Your task to perform on an android device: move an email to a new category in the gmail app Image 0: 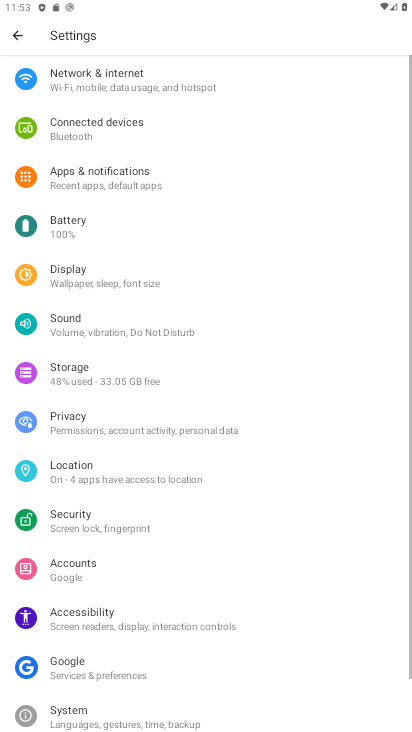
Step 0: click (403, 342)
Your task to perform on an android device: move an email to a new category in the gmail app Image 1: 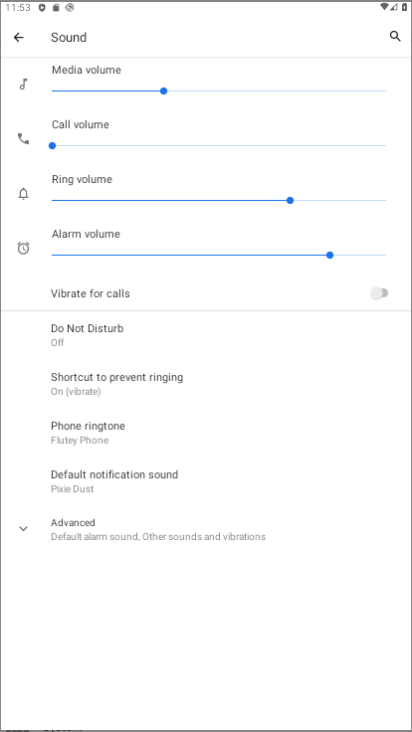
Step 1: click (20, 45)
Your task to perform on an android device: move an email to a new category in the gmail app Image 2: 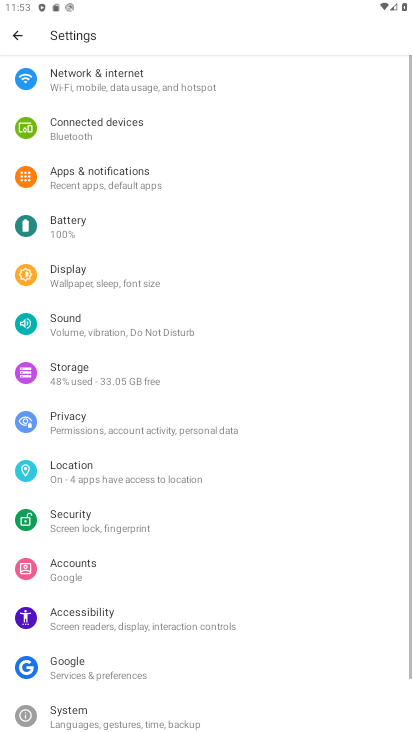
Step 2: click (0, 30)
Your task to perform on an android device: move an email to a new category in the gmail app Image 3: 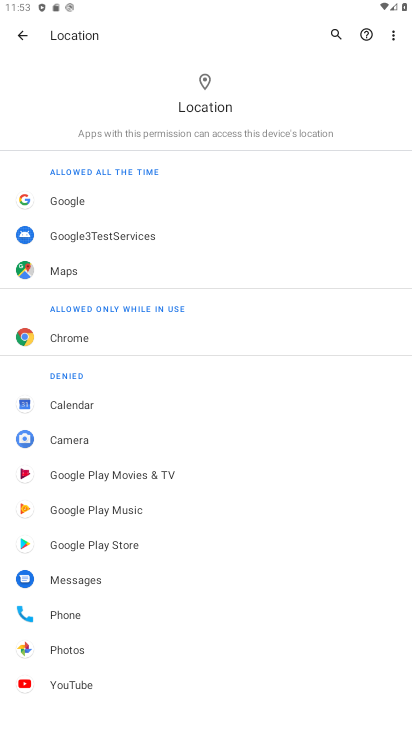
Step 3: press back button
Your task to perform on an android device: move an email to a new category in the gmail app Image 4: 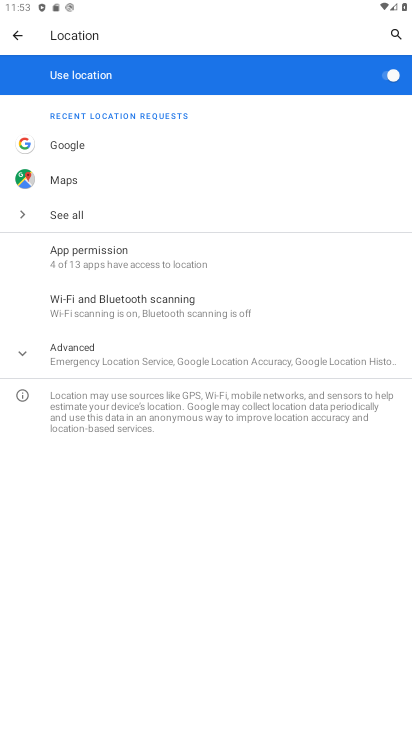
Step 4: press home button
Your task to perform on an android device: move an email to a new category in the gmail app Image 5: 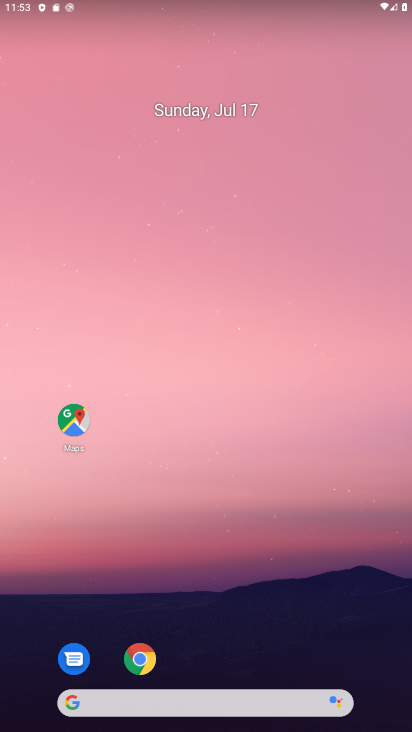
Step 5: drag from (261, 639) to (205, 147)
Your task to perform on an android device: move an email to a new category in the gmail app Image 6: 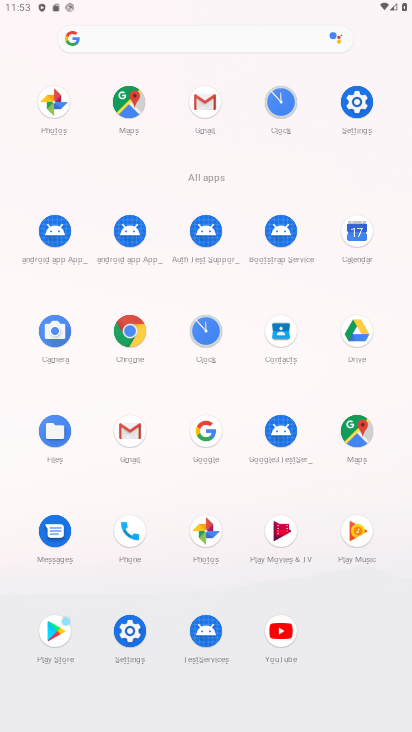
Step 6: click (124, 420)
Your task to perform on an android device: move an email to a new category in the gmail app Image 7: 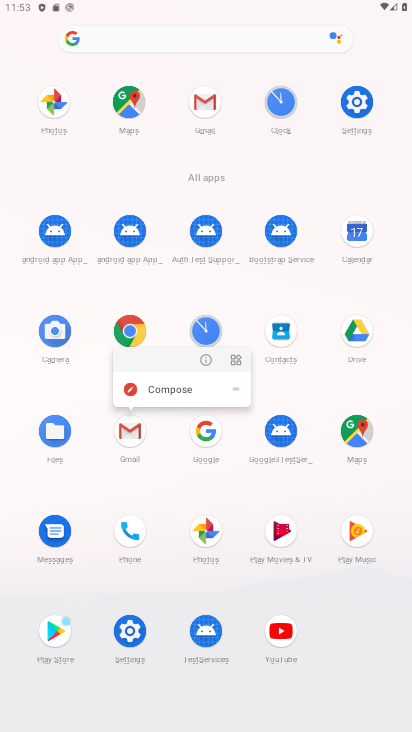
Step 7: click (124, 424)
Your task to perform on an android device: move an email to a new category in the gmail app Image 8: 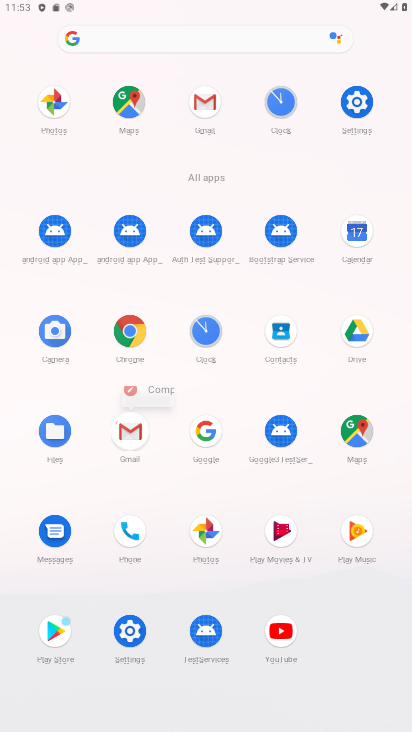
Step 8: click (125, 425)
Your task to perform on an android device: move an email to a new category in the gmail app Image 9: 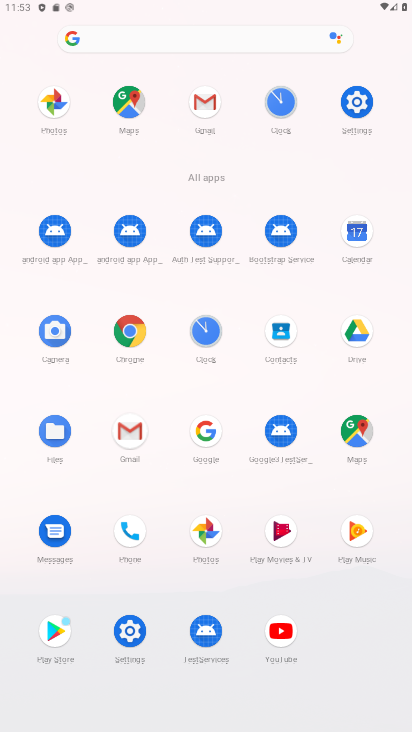
Step 9: click (125, 425)
Your task to perform on an android device: move an email to a new category in the gmail app Image 10: 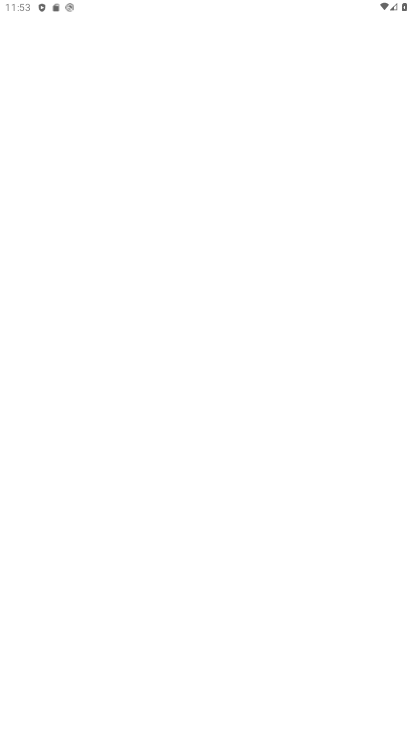
Step 10: click (126, 426)
Your task to perform on an android device: move an email to a new category in the gmail app Image 11: 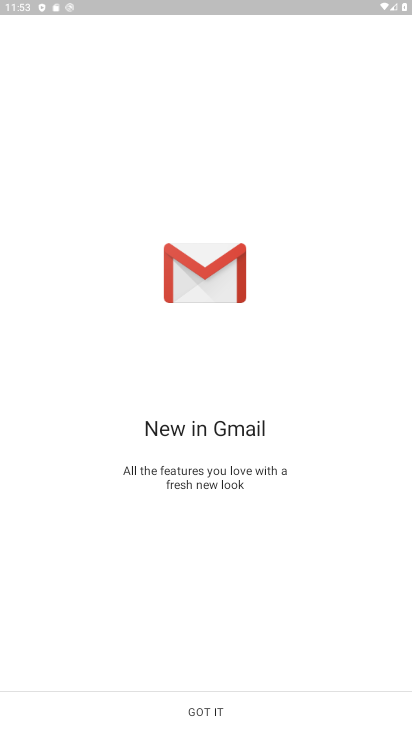
Step 11: click (201, 705)
Your task to perform on an android device: move an email to a new category in the gmail app Image 12: 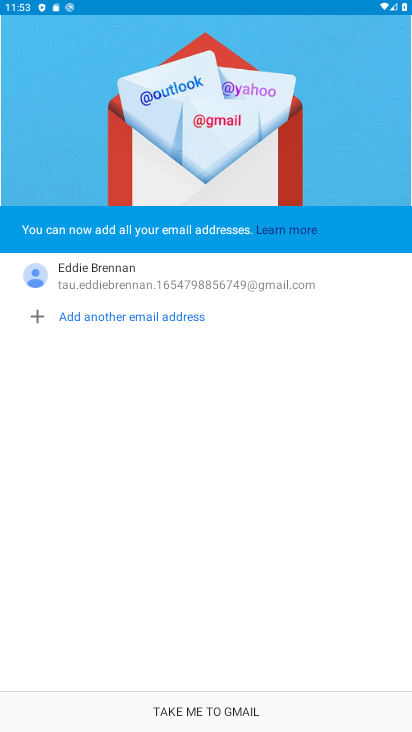
Step 12: drag from (202, 705) to (251, 710)
Your task to perform on an android device: move an email to a new category in the gmail app Image 13: 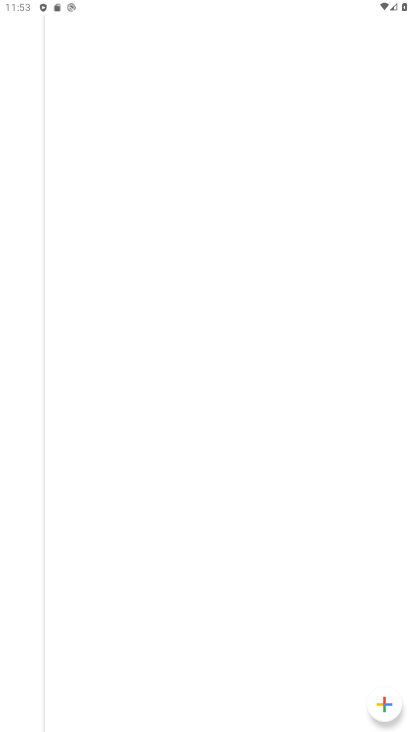
Step 13: click (229, 708)
Your task to perform on an android device: move an email to a new category in the gmail app Image 14: 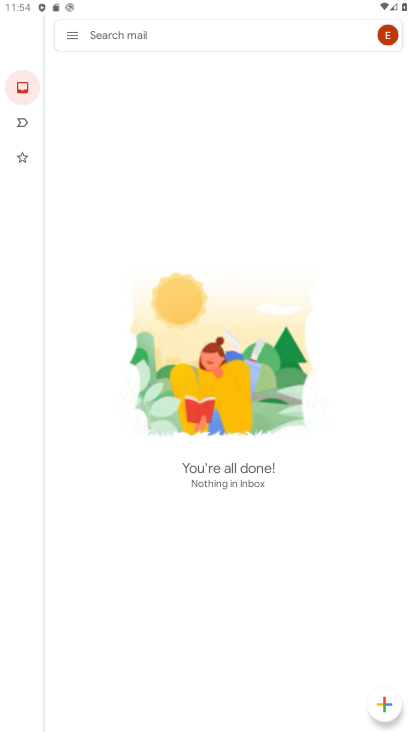
Step 14: click (67, 30)
Your task to perform on an android device: move an email to a new category in the gmail app Image 15: 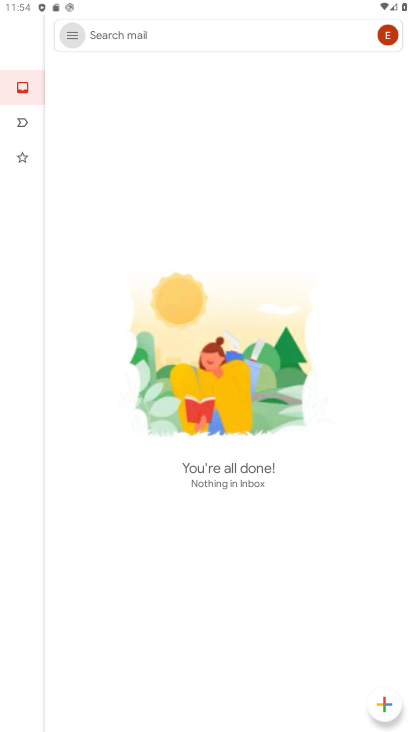
Step 15: click (69, 28)
Your task to perform on an android device: move an email to a new category in the gmail app Image 16: 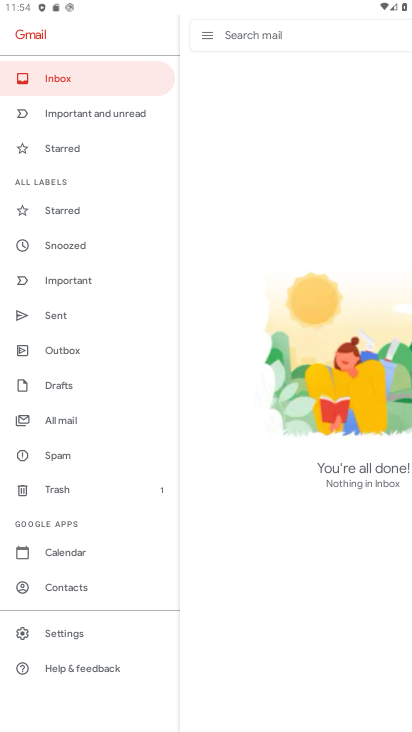
Step 16: click (60, 408)
Your task to perform on an android device: move an email to a new category in the gmail app Image 17: 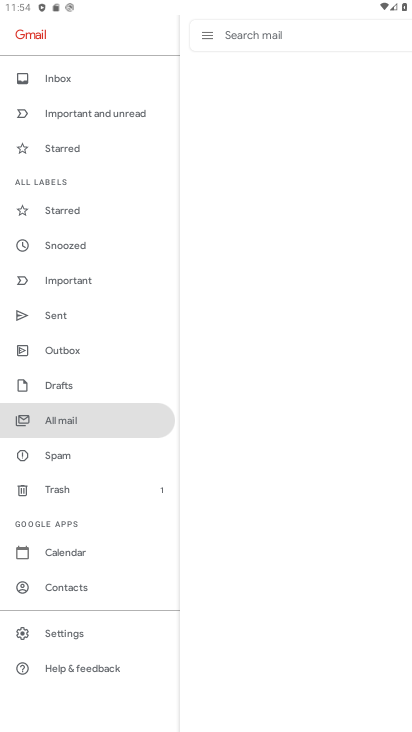
Step 17: click (68, 416)
Your task to perform on an android device: move an email to a new category in the gmail app Image 18: 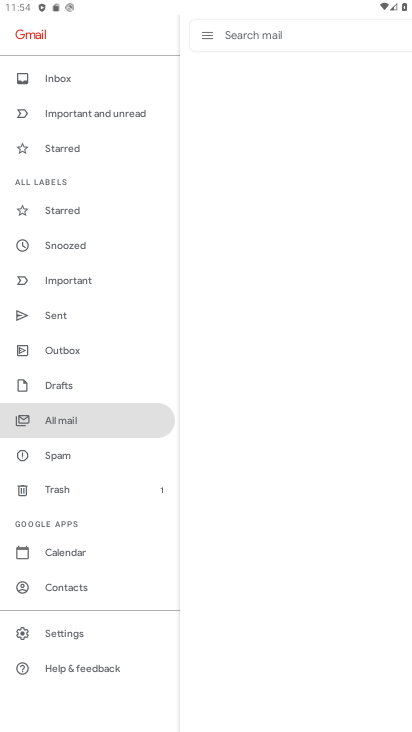
Step 18: click (69, 417)
Your task to perform on an android device: move an email to a new category in the gmail app Image 19: 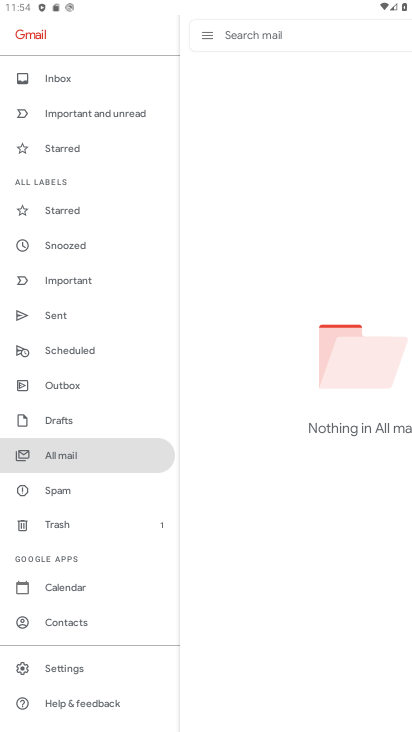
Step 19: click (73, 446)
Your task to perform on an android device: move an email to a new category in the gmail app Image 20: 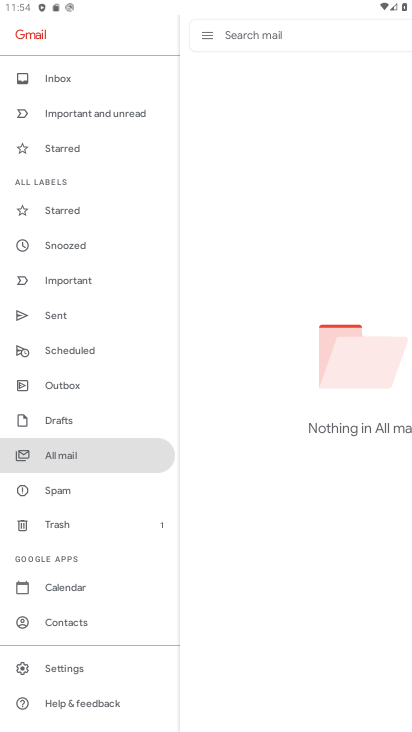
Step 20: click (79, 453)
Your task to perform on an android device: move an email to a new category in the gmail app Image 21: 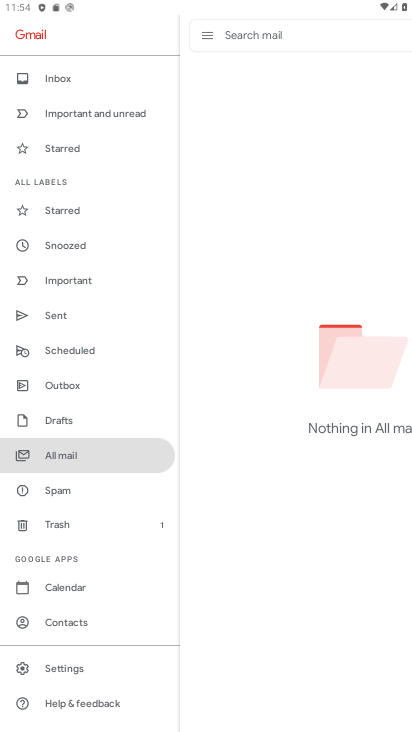
Step 21: click (83, 462)
Your task to perform on an android device: move an email to a new category in the gmail app Image 22: 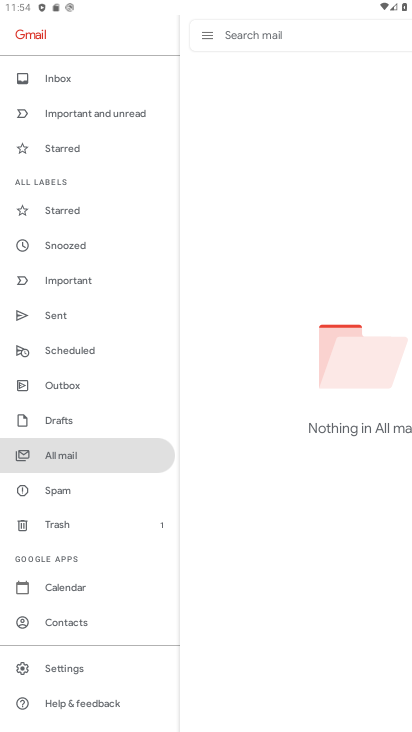
Step 22: click (83, 462)
Your task to perform on an android device: move an email to a new category in the gmail app Image 23: 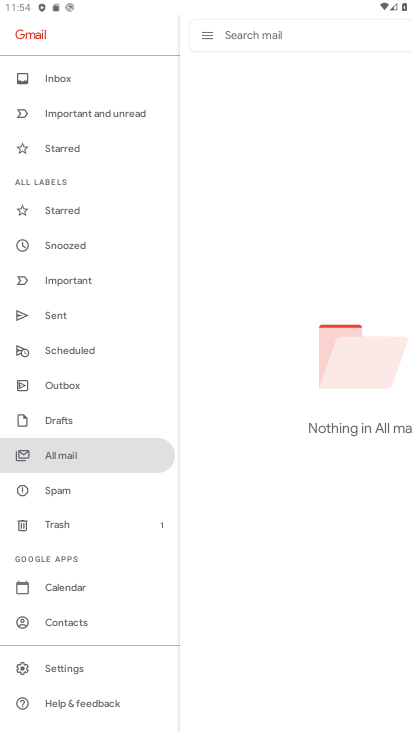
Step 23: click (89, 441)
Your task to perform on an android device: move an email to a new category in the gmail app Image 24: 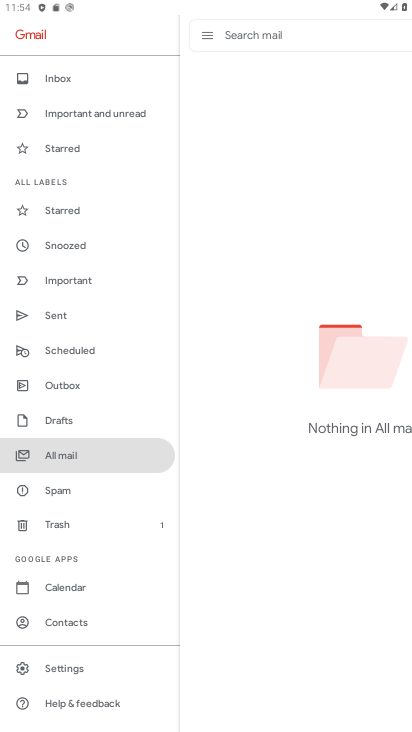
Step 24: click (92, 441)
Your task to perform on an android device: move an email to a new category in the gmail app Image 25: 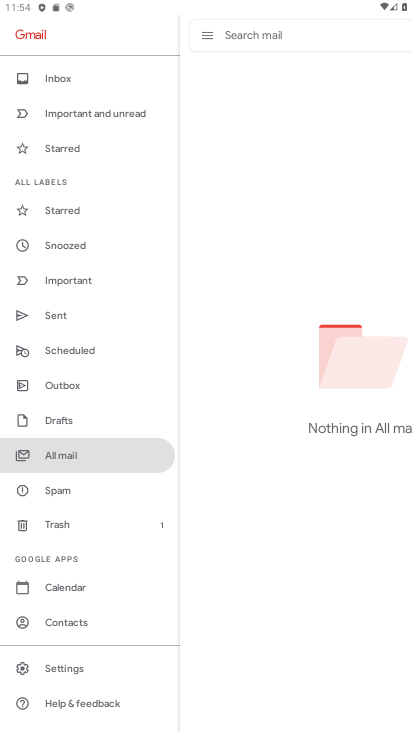
Step 25: click (90, 453)
Your task to perform on an android device: move an email to a new category in the gmail app Image 26: 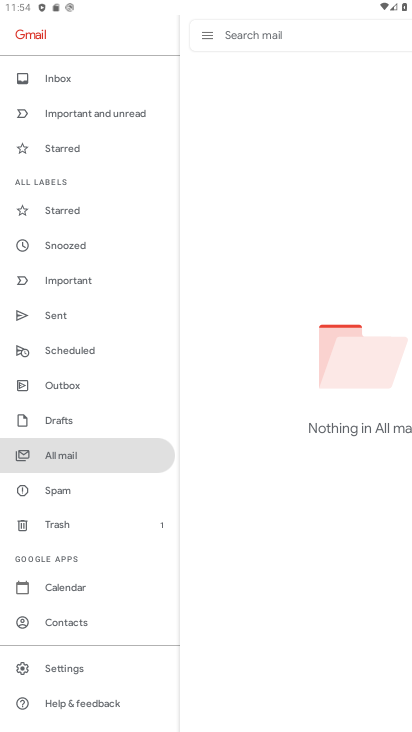
Step 26: click (90, 453)
Your task to perform on an android device: move an email to a new category in the gmail app Image 27: 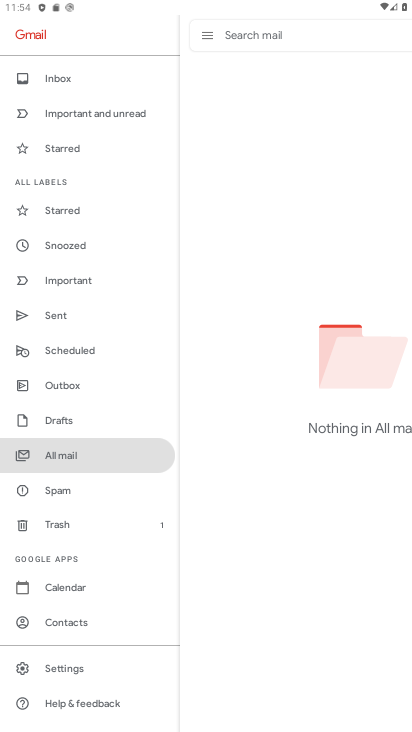
Step 27: click (90, 453)
Your task to perform on an android device: move an email to a new category in the gmail app Image 28: 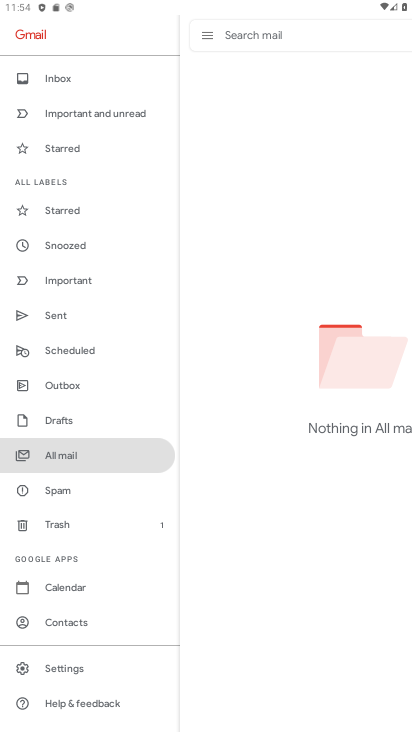
Step 28: click (90, 455)
Your task to perform on an android device: move an email to a new category in the gmail app Image 29: 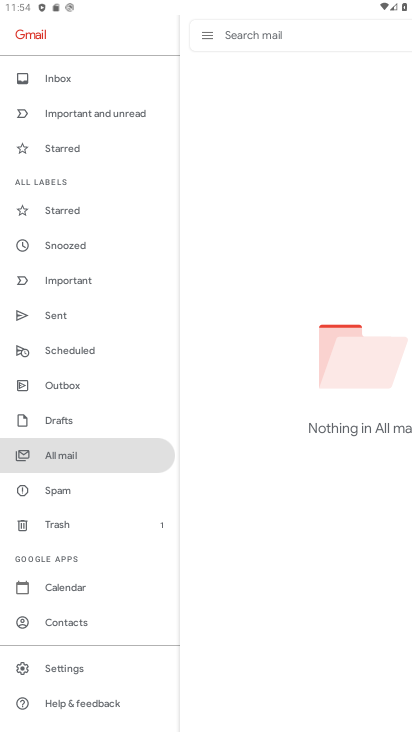
Step 29: click (90, 457)
Your task to perform on an android device: move an email to a new category in the gmail app Image 30: 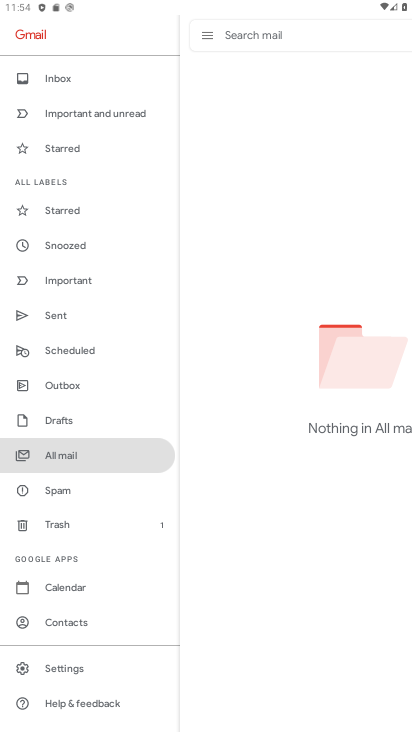
Step 30: click (91, 458)
Your task to perform on an android device: move an email to a new category in the gmail app Image 31: 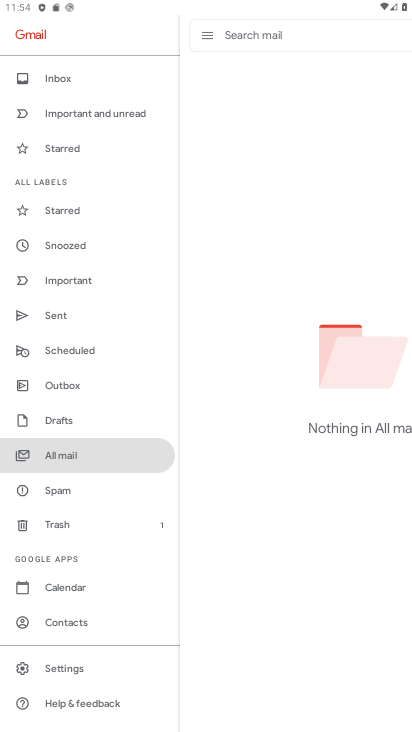
Step 31: task complete